Your task to perform on an android device: see tabs open on other devices in the chrome app Image 0: 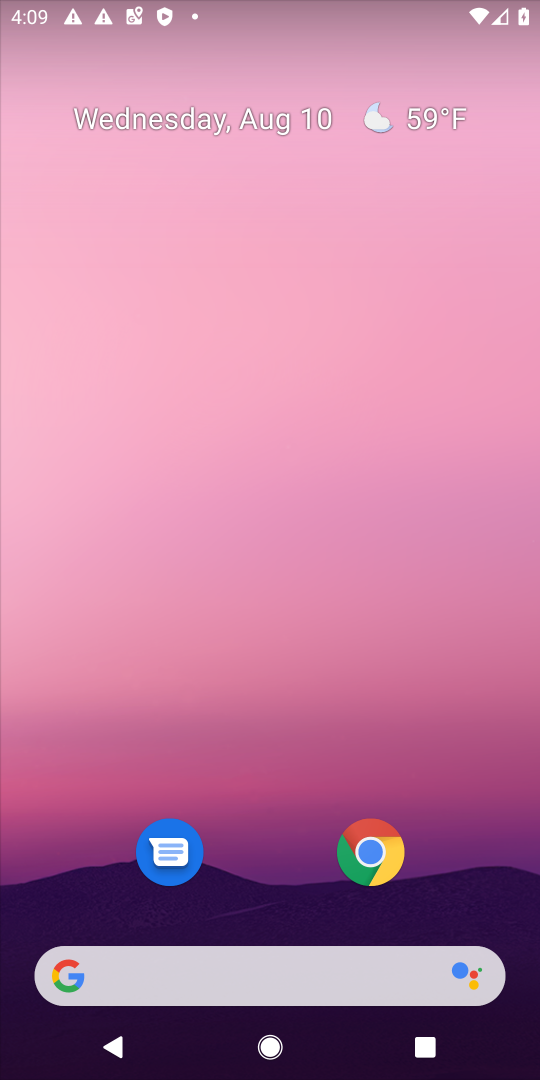
Step 0: drag from (310, 776) to (212, 0)
Your task to perform on an android device: see tabs open on other devices in the chrome app Image 1: 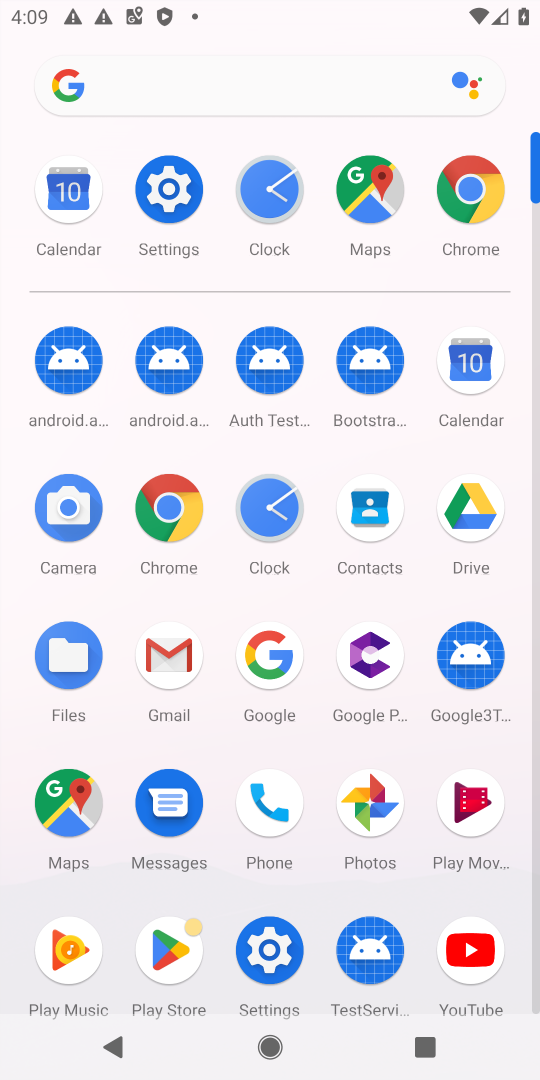
Step 1: click (169, 510)
Your task to perform on an android device: see tabs open on other devices in the chrome app Image 2: 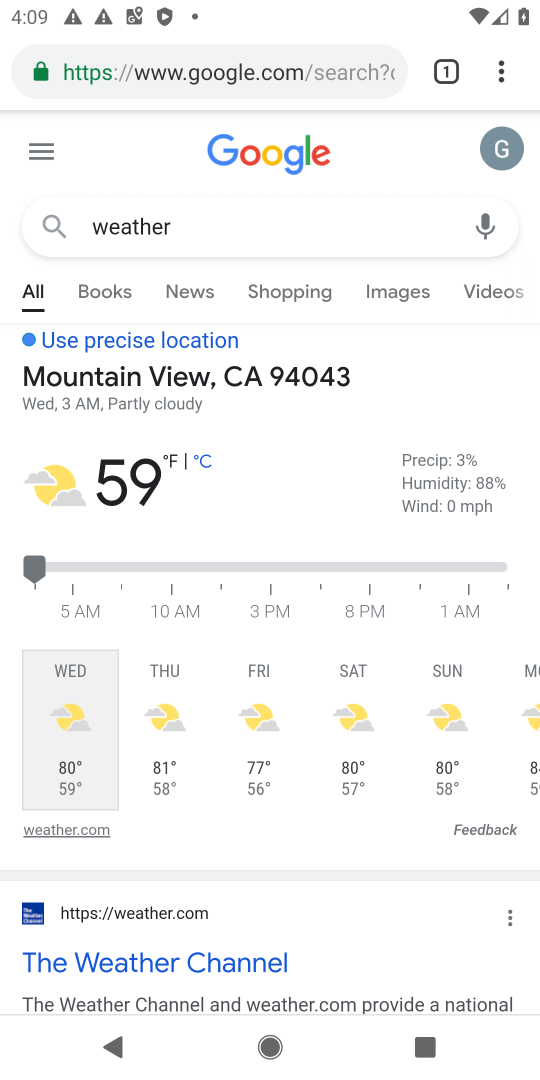
Step 2: task complete